Your task to perform on an android device: Go to Amazon Image 0: 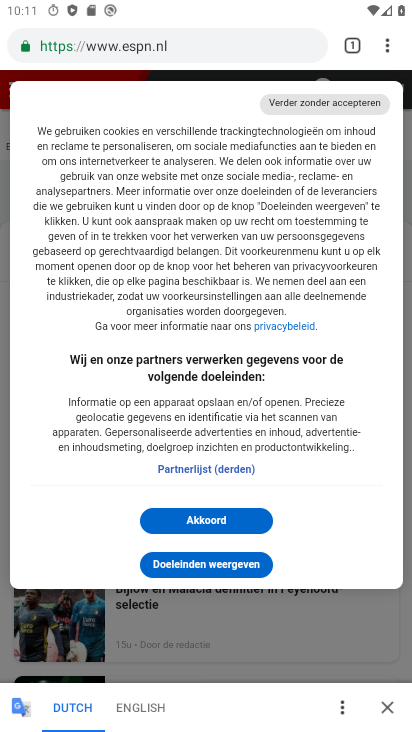
Step 0: click (179, 43)
Your task to perform on an android device: Go to Amazon Image 1: 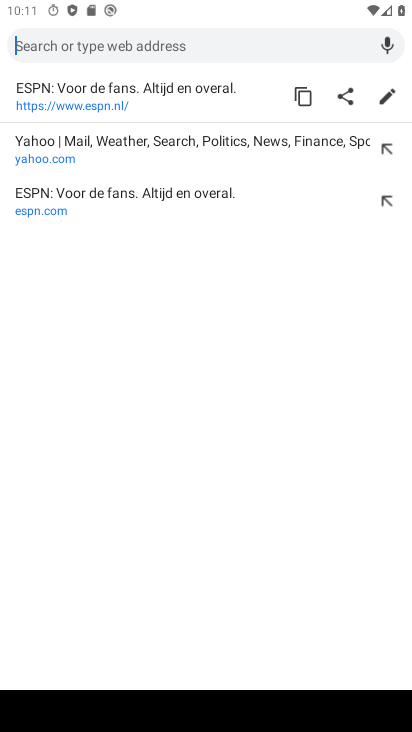
Step 1: type "amazon"
Your task to perform on an android device: Go to Amazon Image 2: 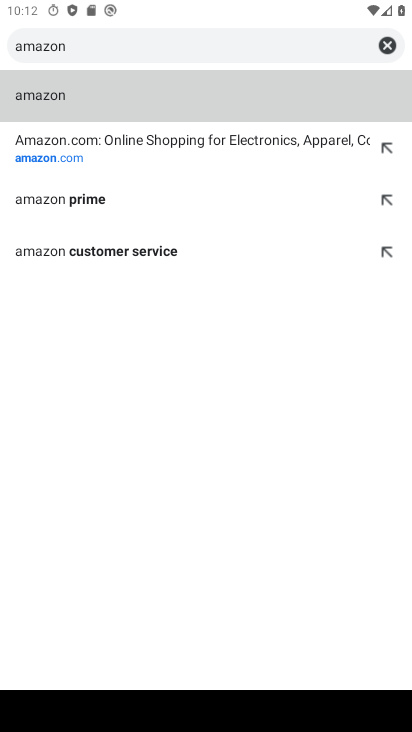
Step 2: click (47, 99)
Your task to perform on an android device: Go to Amazon Image 3: 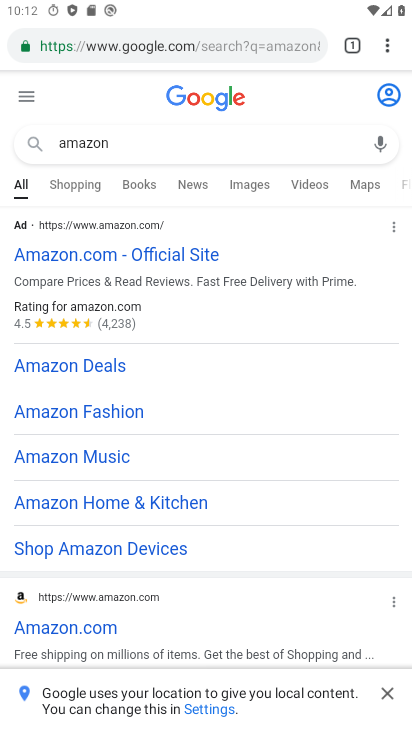
Step 3: click (53, 261)
Your task to perform on an android device: Go to Amazon Image 4: 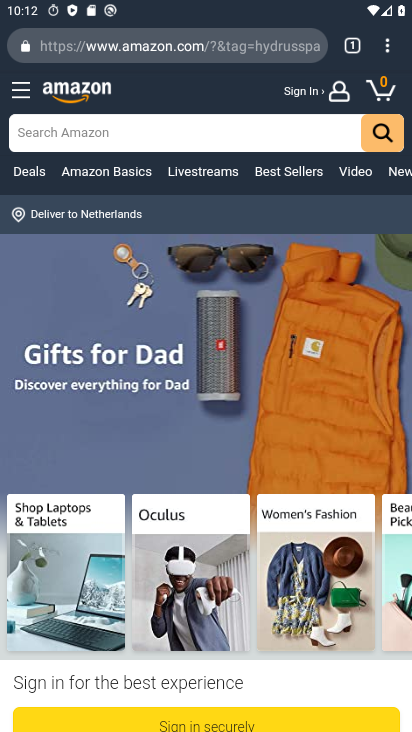
Step 4: task complete